Your task to perform on an android device: Go to wifi settings Image 0: 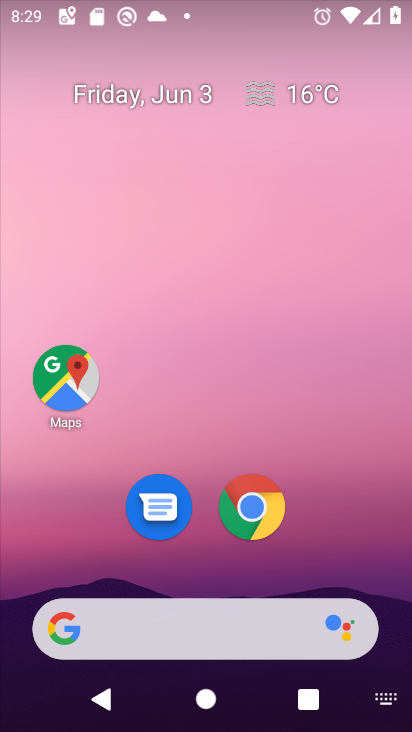
Step 0: drag from (329, 486) to (213, 7)
Your task to perform on an android device: Go to wifi settings Image 1: 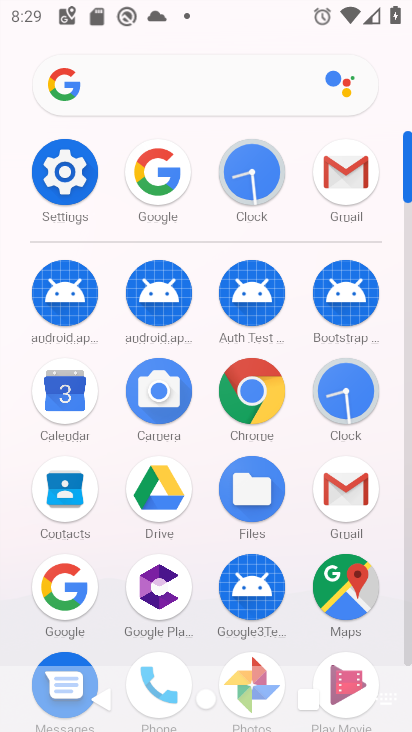
Step 1: click (72, 171)
Your task to perform on an android device: Go to wifi settings Image 2: 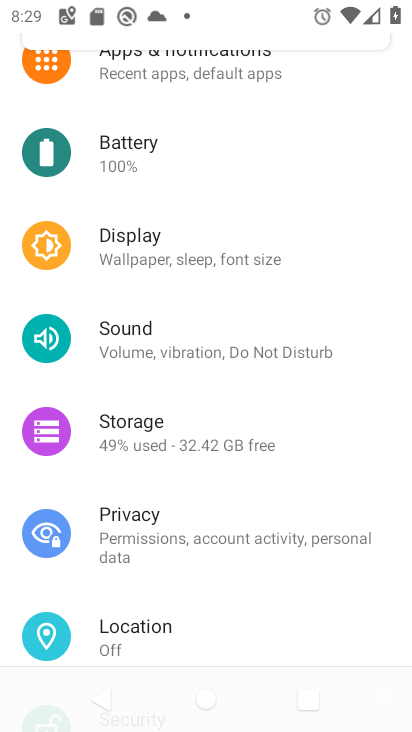
Step 2: drag from (238, 131) to (211, 722)
Your task to perform on an android device: Go to wifi settings Image 3: 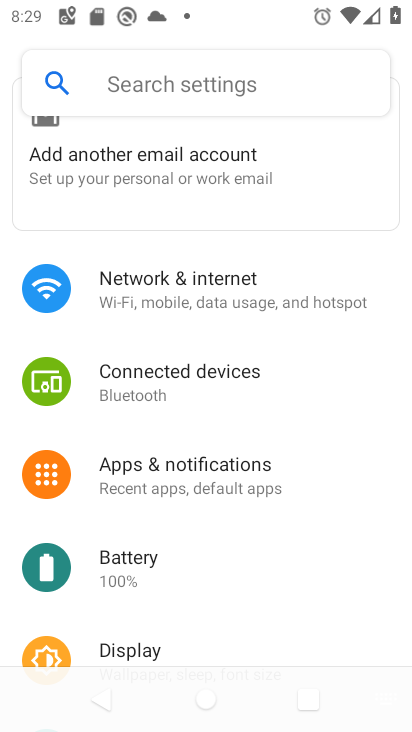
Step 3: click (159, 282)
Your task to perform on an android device: Go to wifi settings Image 4: 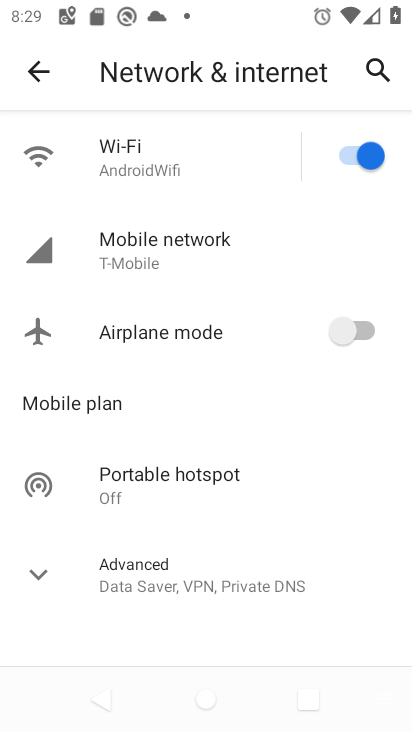
Step 4: click (161, 134)
Your task to perform on an android device: Go to wifi settings Image 5: 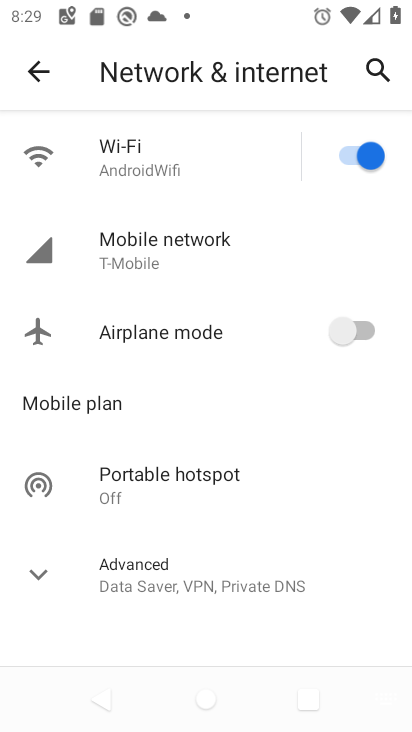
Step 5: task complete